Your task to perform on an android device: change notification settings in the gmail app Image 0: 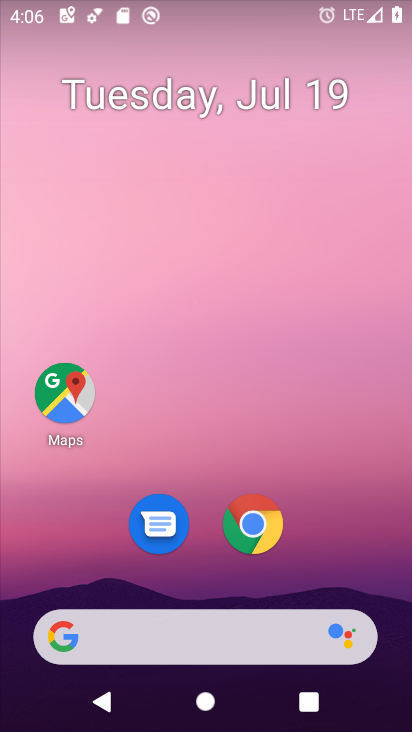
Step 0: drag from (322, 547) to (274, 0)
Your task to perform on an android device: change notification settings in the gmail app Image 1: 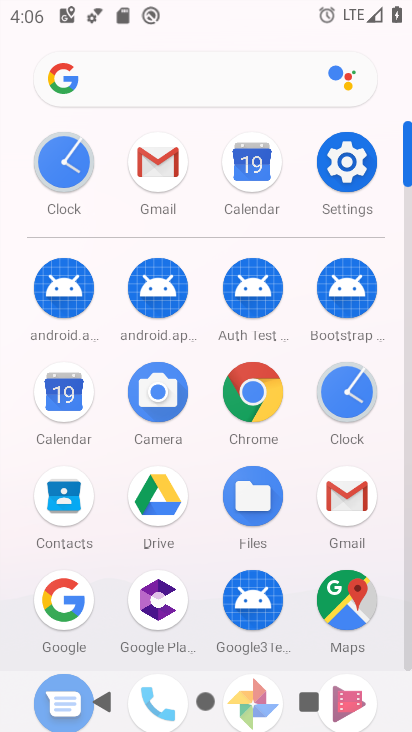
Step 1: click (157, 164)
Your task to perform on an android device: change notification settings in the gmail app Image 2: 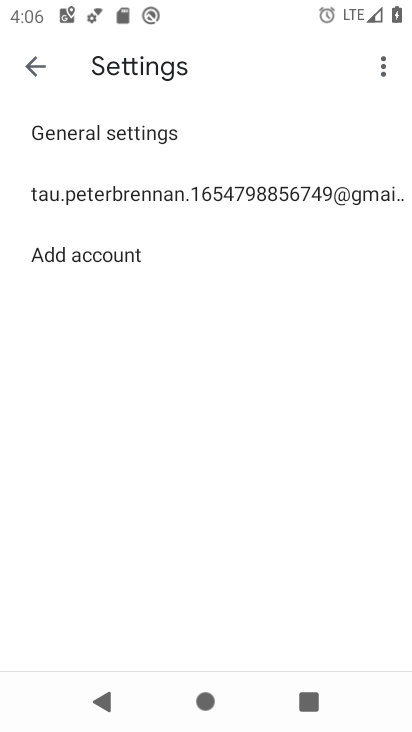
Step 2: click (162, 132)
Your task to perform on an android device: change notification settings in the gmail app Image 3: 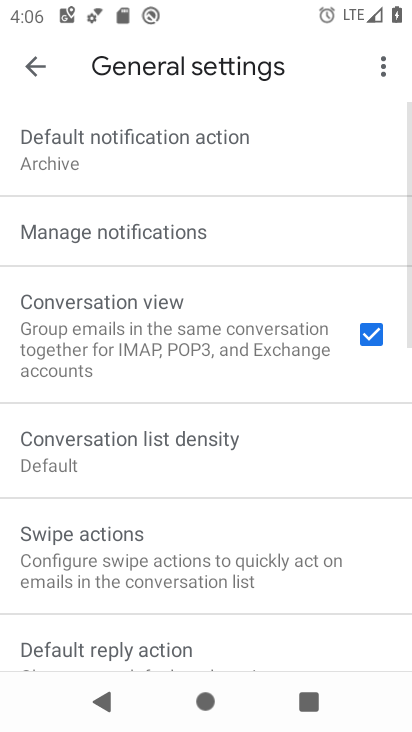
Step 3: click (178, 216)
Your task to perform on an android device: change notification settings in the gmail app Image 4: 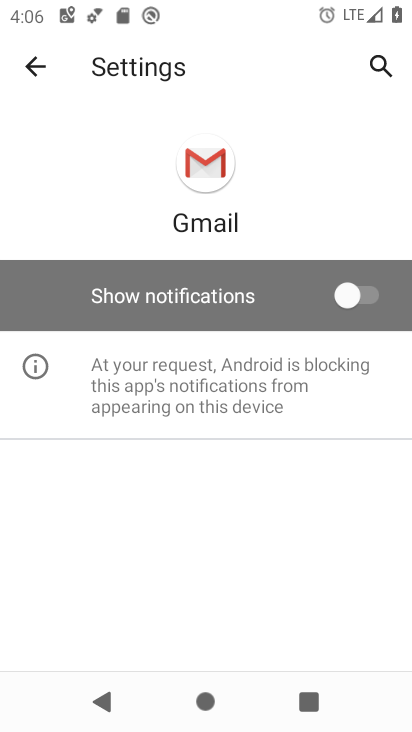
Step 4: click (356, 299)
Your task to perform on an android device: change notification settings in the gmail app Image 5: 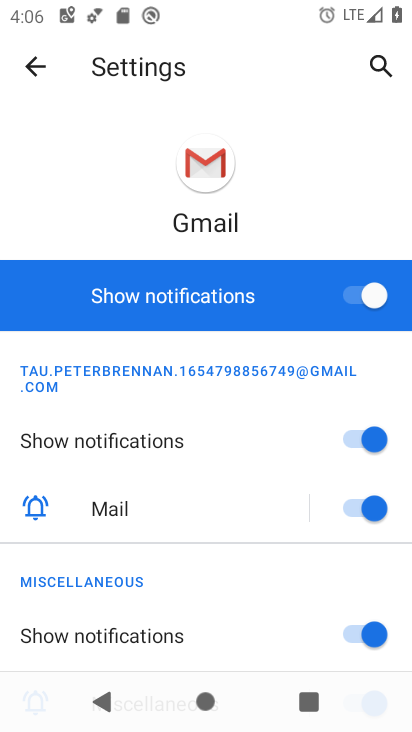
Step 5: task complete